Your task to perform on an android device: Do I have any events today? Image 0: 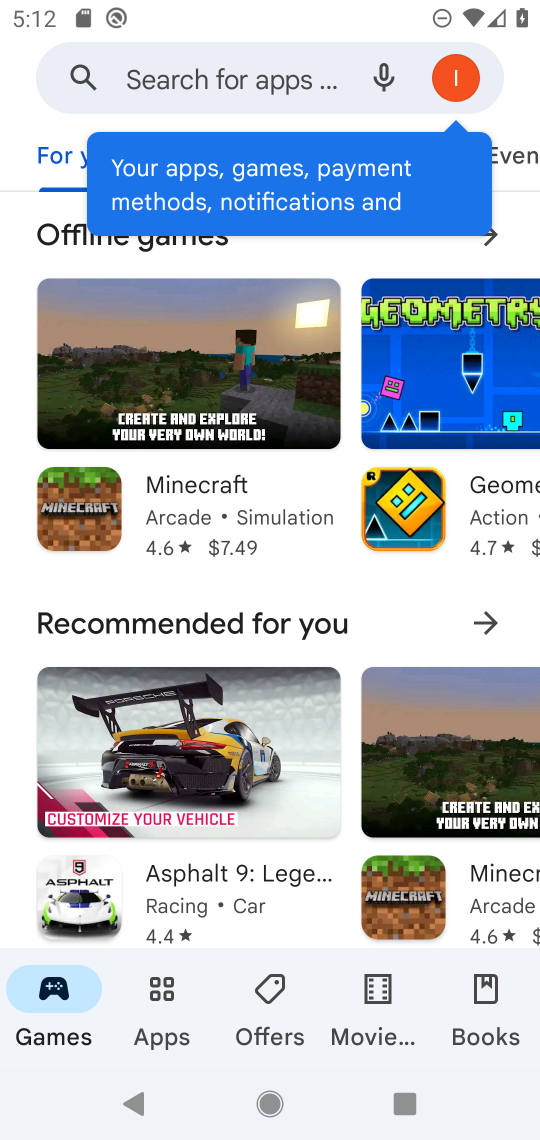
Step 0: click (158, 51)
Your task to perform on an android device: Do I have any events today? Image 1: 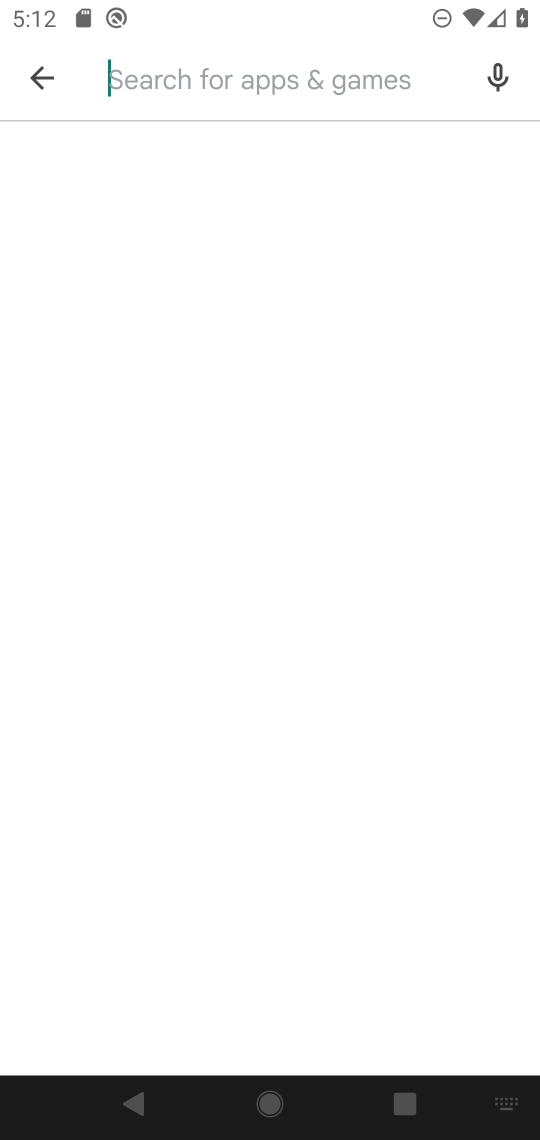
Step 1: click (156, 73)
Your task to perform on an android device: Do I have any events today? Image 2: 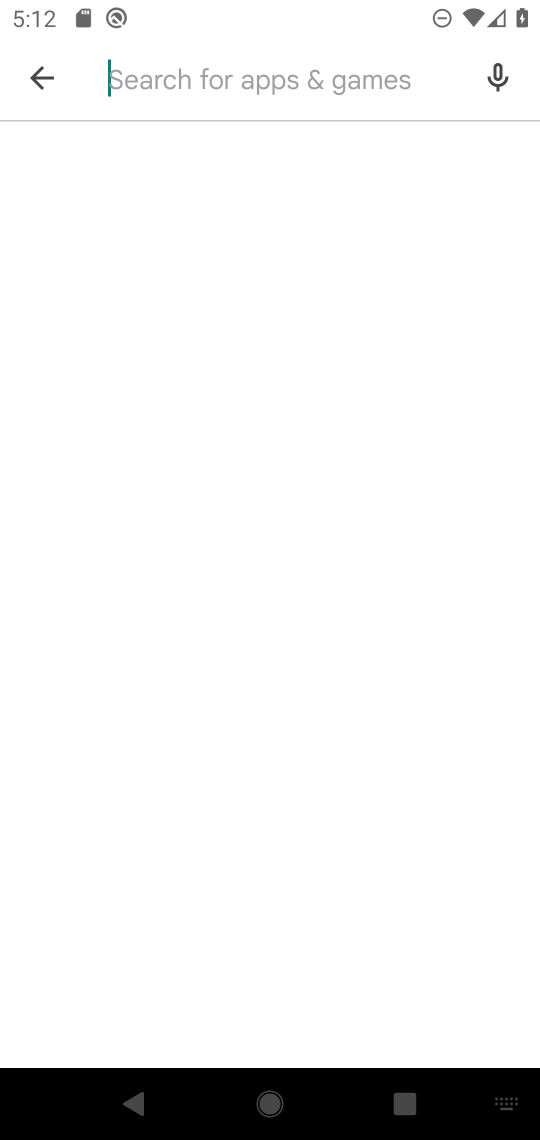
Step 2: press home button
Your task to perform on an android device: Do I have any events today? Image 3: 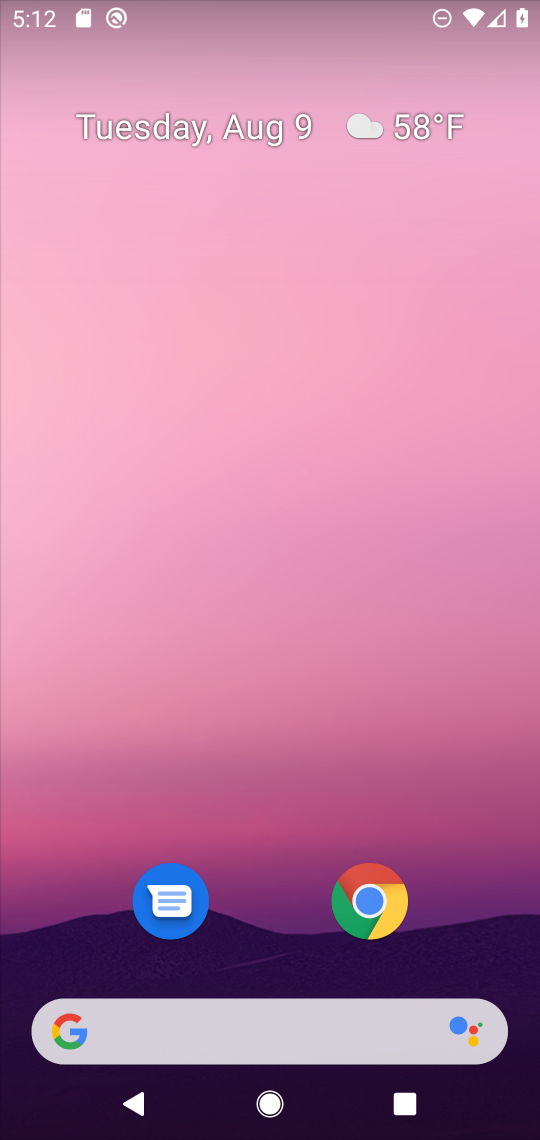
Step 3: drag from (268, 895) to (328, 247)
Your task to perform on an android device: Do I have any events today? Image 4: 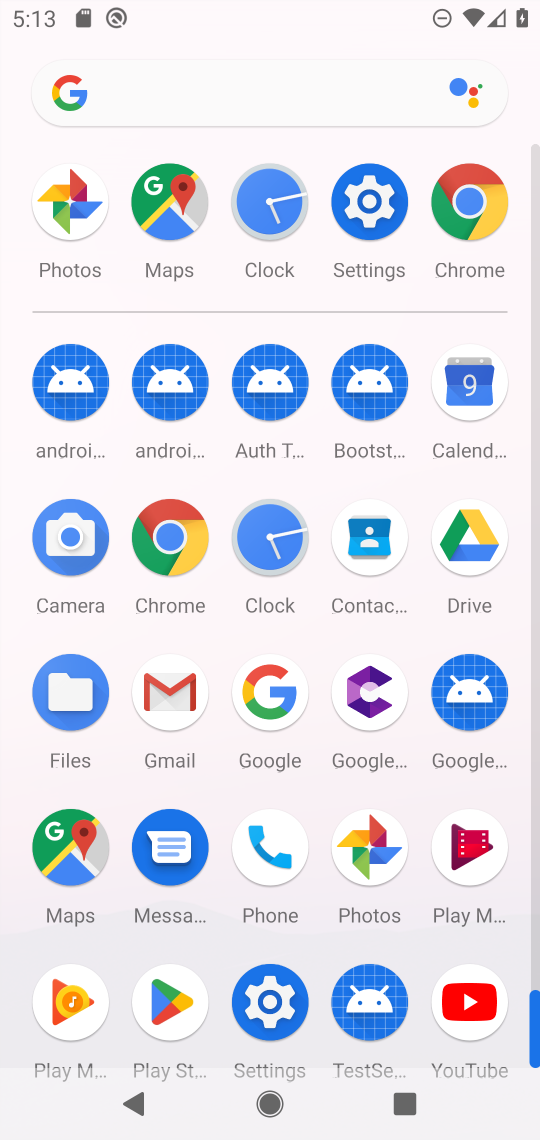
Step 4: click (471, 371)
Your task to perform on an android device: Do I have any events today? Image 5: 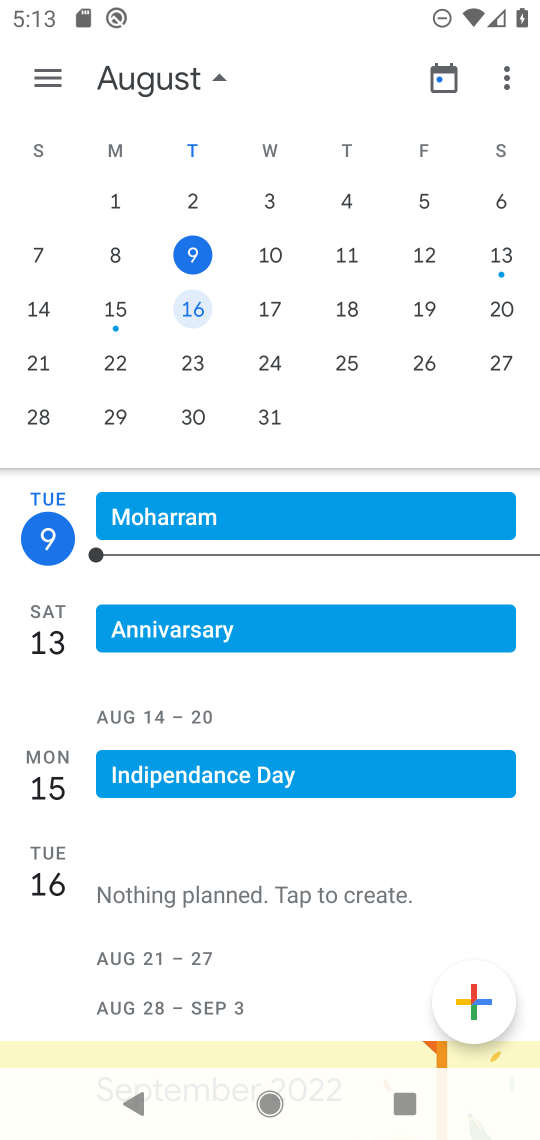
Step 5: click (179, 256)
Your task to perform on an android device: Do I have any events today? Image 6: 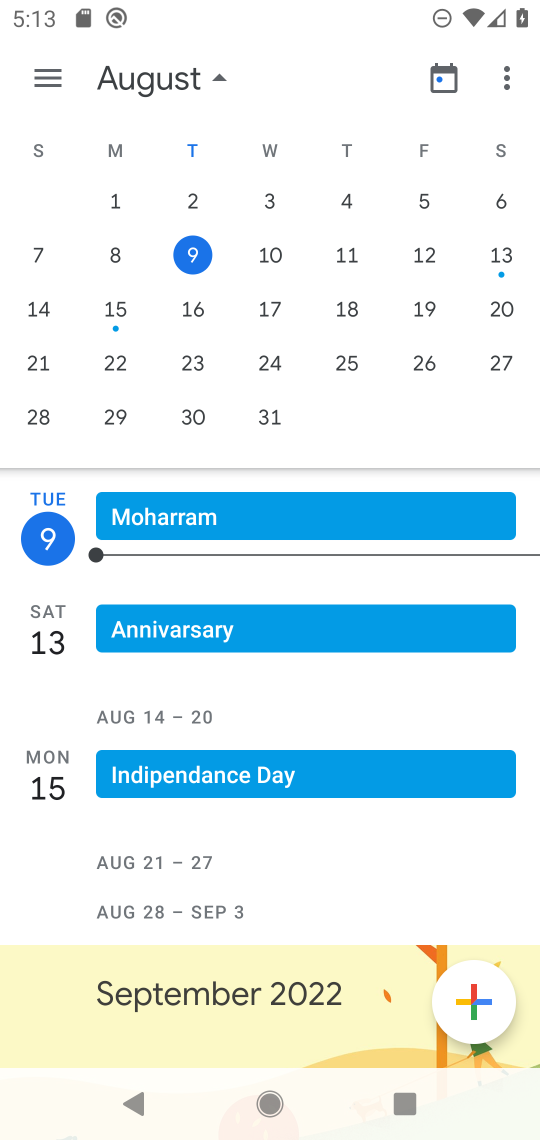
Step 6: task complete